Your task to perform on an android device: stop showing notifications on the lock screen Image 0: 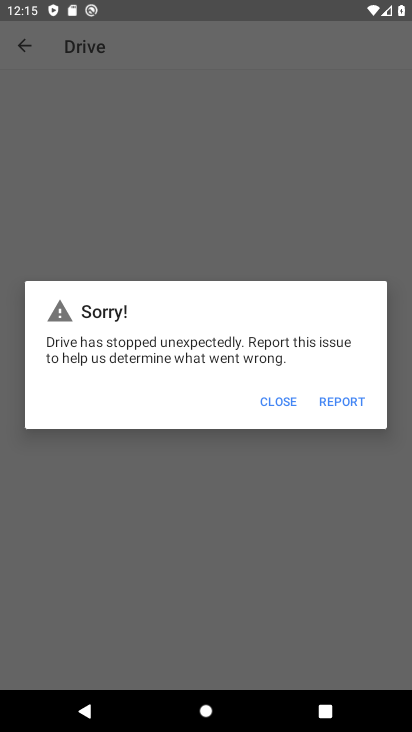
Step 0: press home button
Your task to perform on an android device: stop showing notifications on the lock screen Image 1: 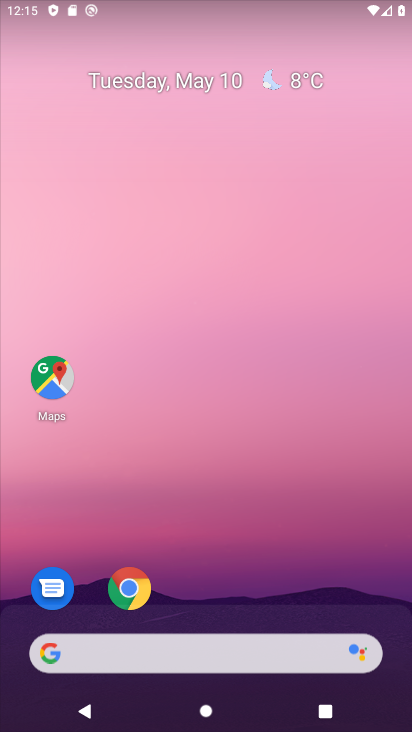
Step 1: drag from (229, 575) to (244, 173)
Your task to perform on an android device: stop showing notifications on the lock screen Image 2: 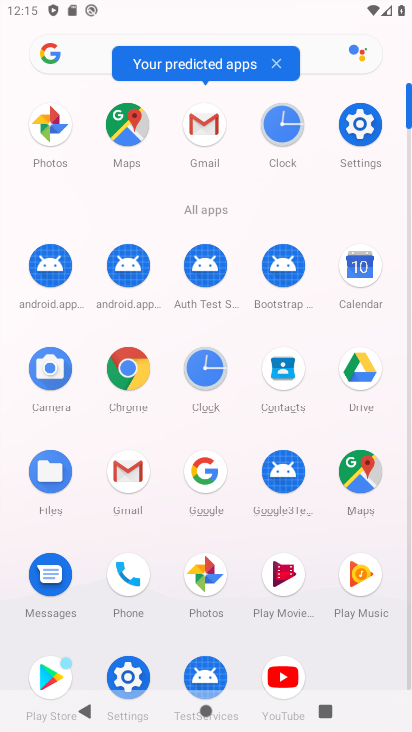
Step 2: click (366, 129)
Your task to perform on an android device: stop showing notifications on the lock screen Image 3: 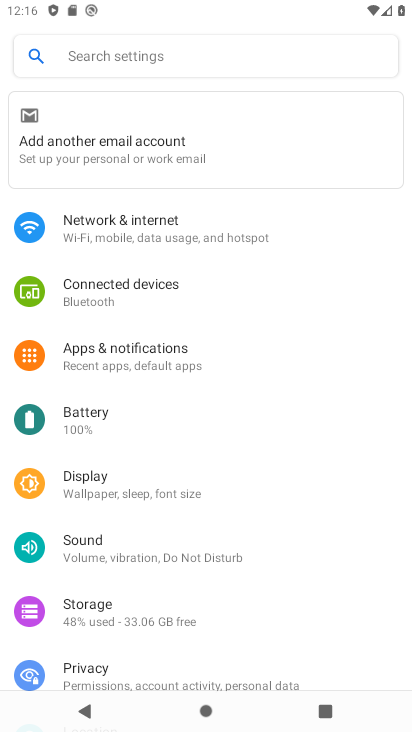
Step 3: click (174, 350)
Your task to perform on an android device: stop showing notifications on the lock screen Image 4: 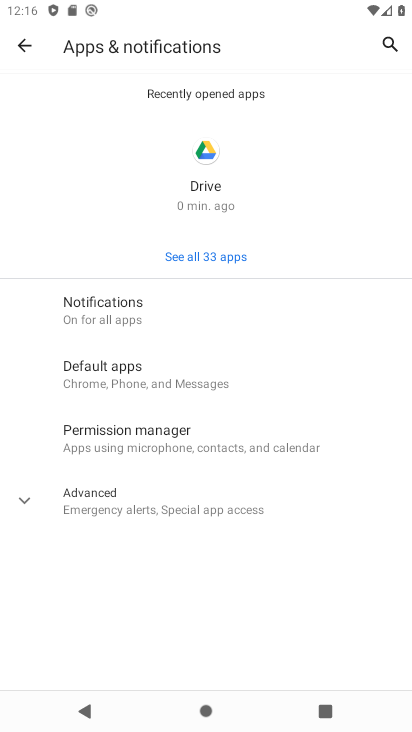
Step 4: click (131, 314)
Your task to perform on an android device: stop showing notifications on the lock screen Image 5: 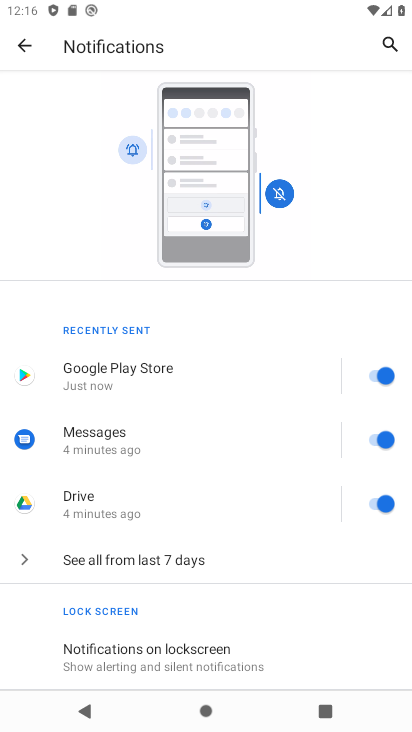
Step 5: click (185, 661)
Your task to perform on an android device: stop showing notifications on the lock screen Image 6: 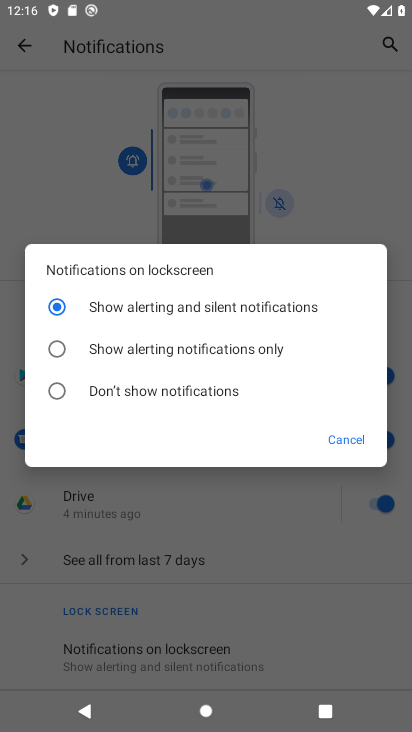
Step 6: click (138, 394)
Your task to perform on an android device: stop showing notifications on the lock screen Image 7: 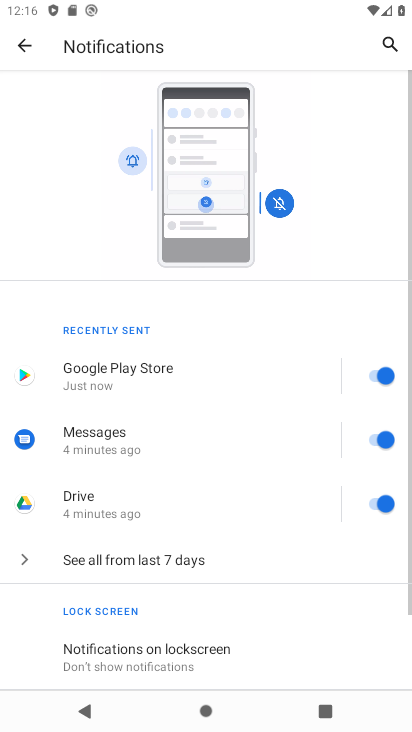
Step 7: task complete